Your task to perform on an android device: Open Google Chrome and open the bookmarks view Image 0: 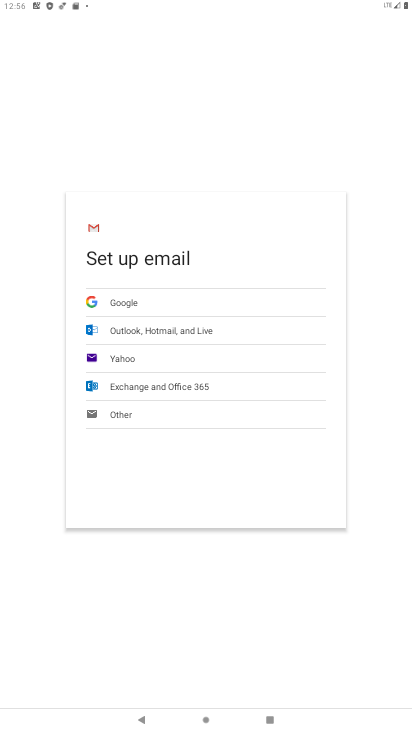
Step 0: press home button
Your task to perform on an android device: Open Google Chrome and open the bookmarks view Image 1: 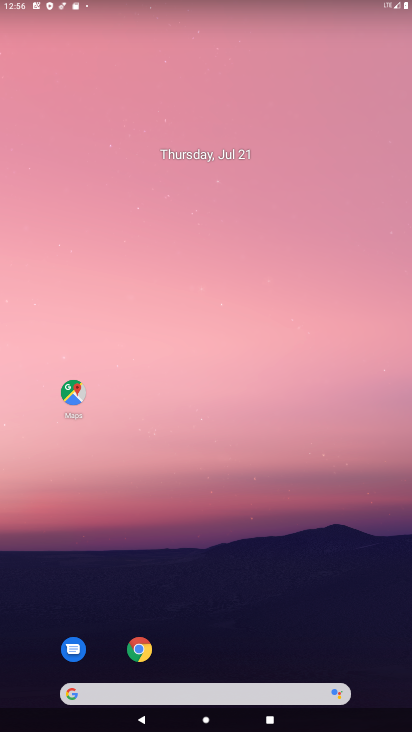
Step 1: click (137, 649)
Your task to perform on an android device: Open Google Chrome and open the bookmarks view Image 2: 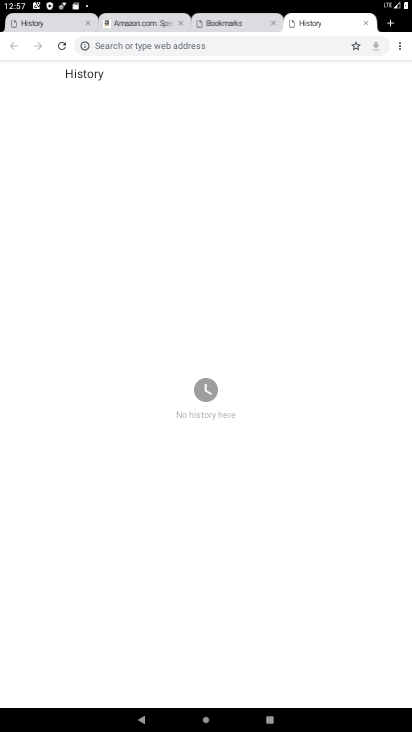
Step 2: click (400, 46)
Your task to perform on an android device: Open Google Chrome and open the bookmarks view Image 3: 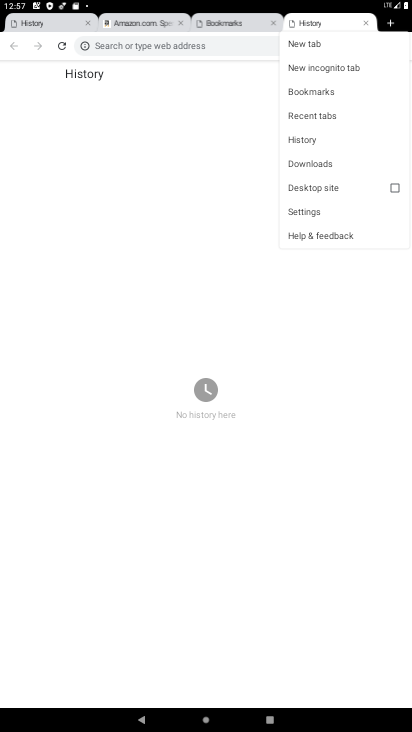
Step 3: click (319, 88)
Your task to perform on an android device: Open Google Chrome and open the bookmarks view Image 4: 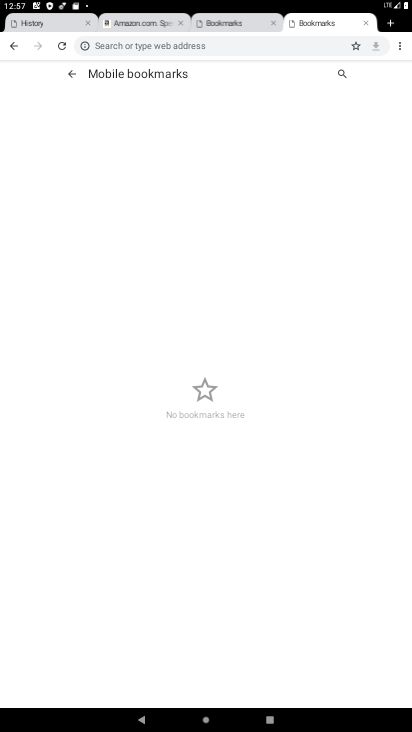
Step 4: task complete